Your task to perform on an android device: Open calendar and show me the fourth week of next month Image 0: 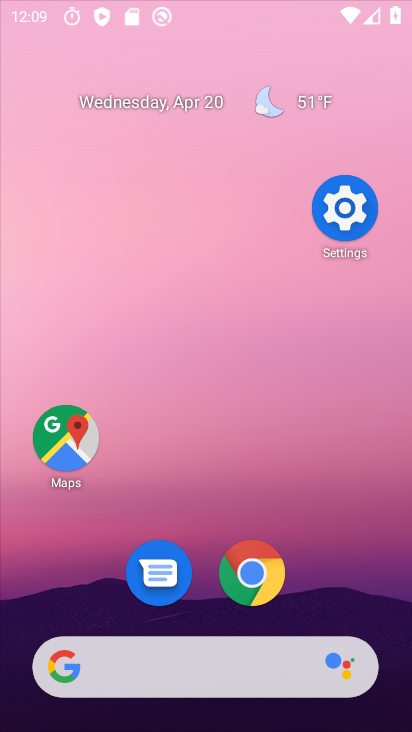
Step 0: click (354, 219)
Your task to perform on an android device: Open calendar and show me the fourth week of next month Image 1: 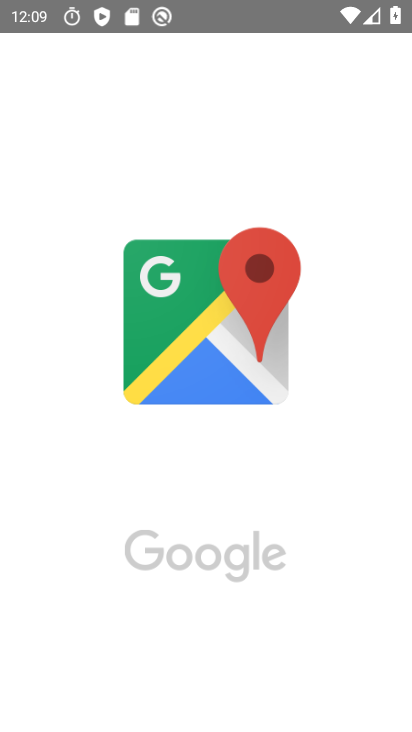
Step 1: drag from (359, 606) to (355, 287)
Your task to perform on an android device: Open calendar and show me the fourth week of next month Image 2: 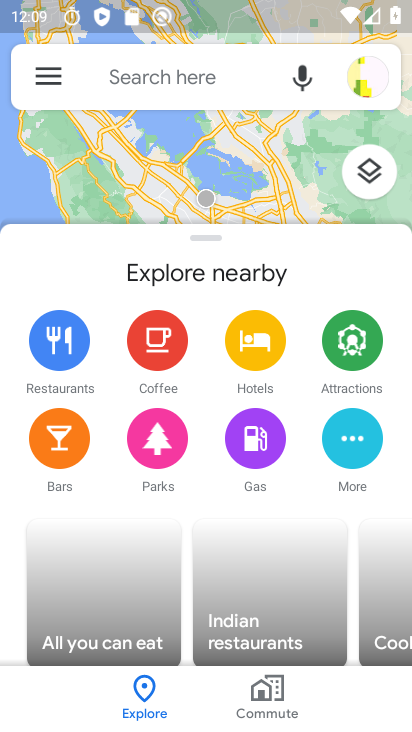
Step 2: press home button
Your task to perform on an android device: Open calendar and show me the fourth week of next month Image 3: 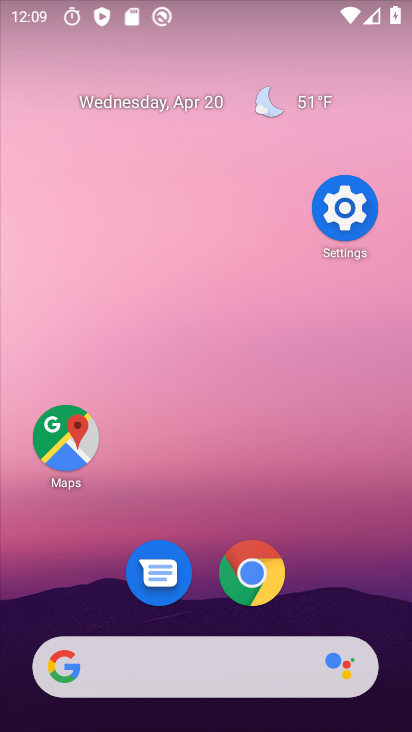
Step 3: drag from (345, 415) to (346, 141)
Your task to perform on an android device: Open calendar and show me the fourth week of next month Image 4: 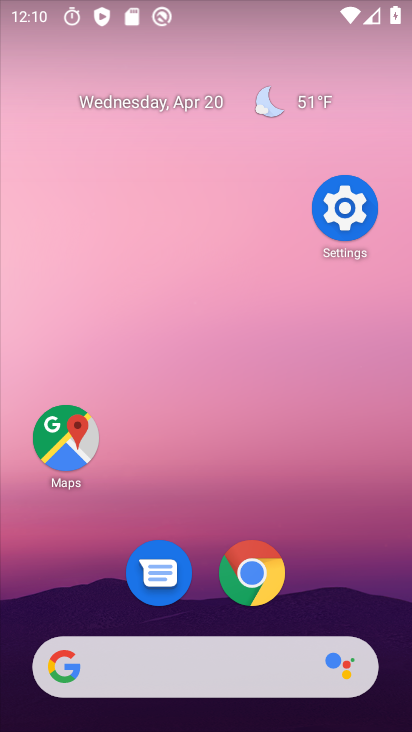
Step 4: drag from (366, 582) to (375, 92)
Your task to perform on an android device: Open calendar and show me the fourth week of next month Image 5: 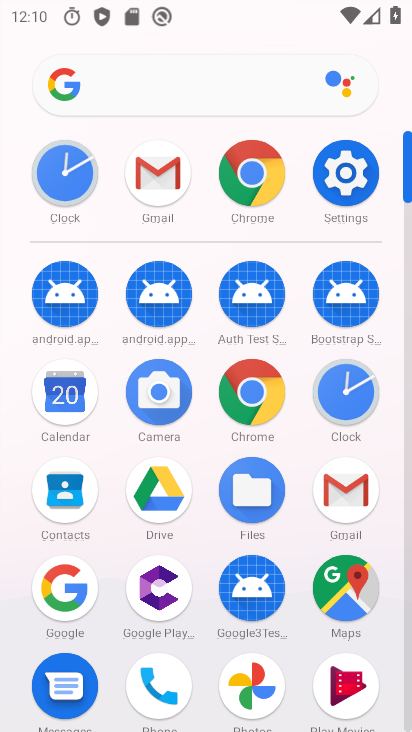
Step 5: click (80, 409)
Your task to perform on an android device: Open calendar and show me the fourth week of next month Image 6: 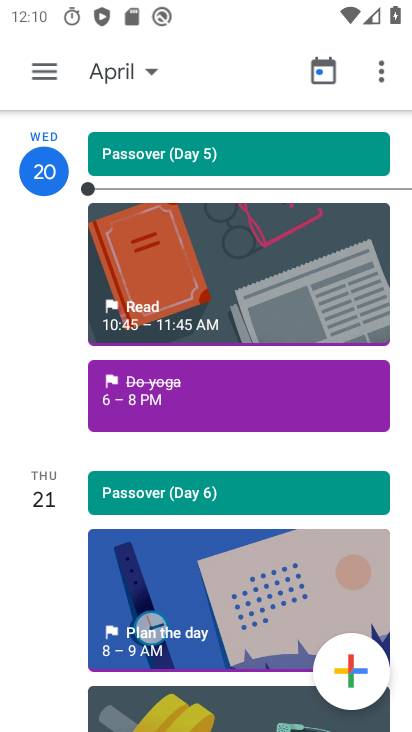
Step 6: click (125, 82)
Your task to perform on an android device: Open calendar and show me the fourth week of next month Image 7: 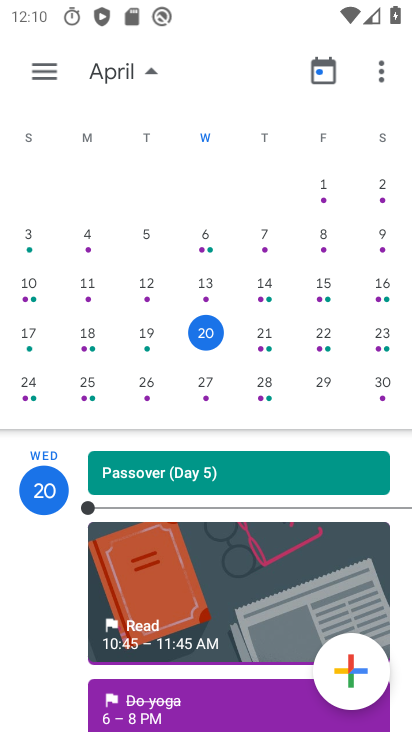
Step 7: drag from (361, 350) to (14, 349)
Your task to perform on an android device: Open calendar and show me the fourth week of next month Image 8: 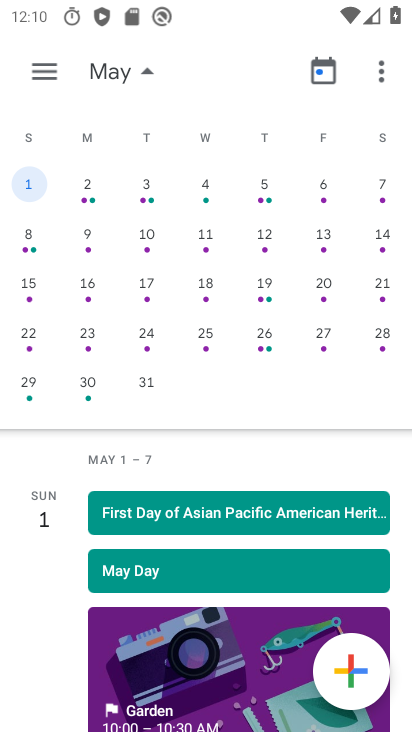
Step 8: click (25, 346)
Your task to perform on an android device: Open calendar and show me the fourth week of next month Image 9: 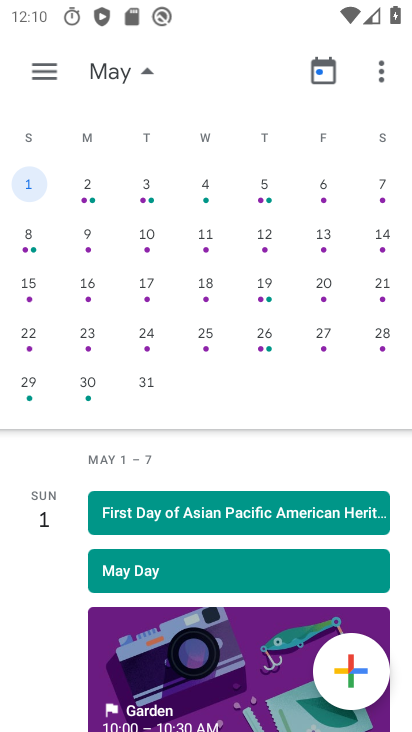
Step 9: drag from (31, 345) to (147, 346)
Your task to perform on an android device: Open calendar and show me the fourth week of next month Image 10: 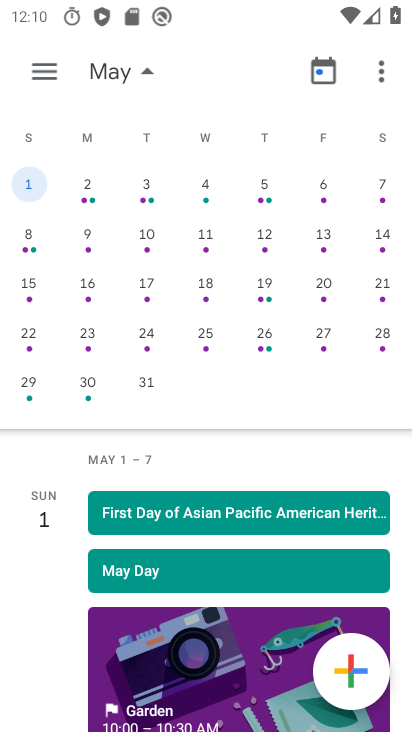
Step 10: click (204, 345)
Your task to perform on an android device: Open calendar and show me the fourth week of next month Image 11: 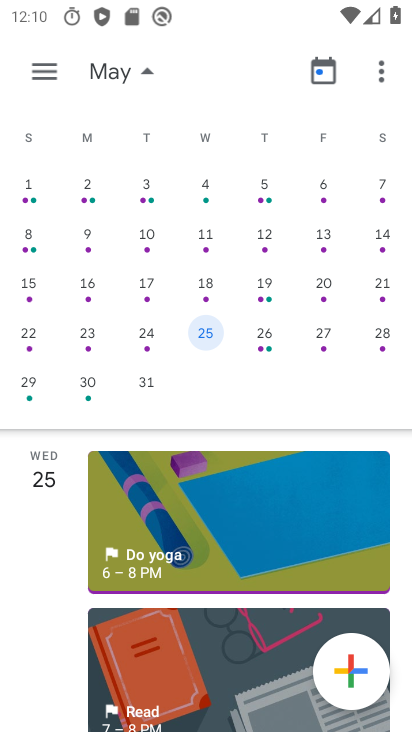
Step 11: click (269, 354)
Your task to perform on an android device: Open calendar and show me the fourth week of next month Image 12: 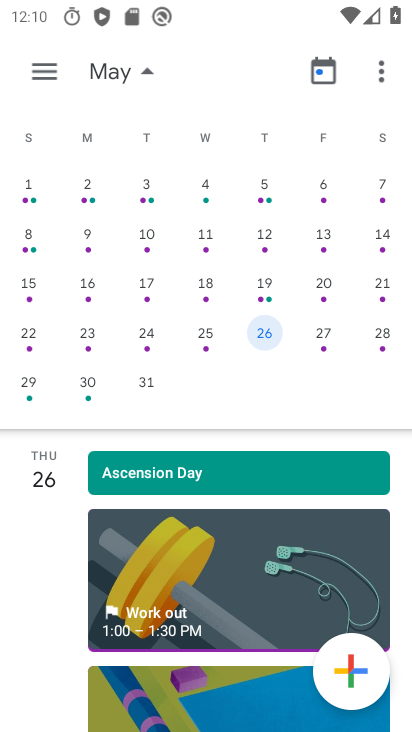
Step 12: click (306, 348)
Your task to perform on an android device: Open calendar and show me the fourth week of next month Image 13: 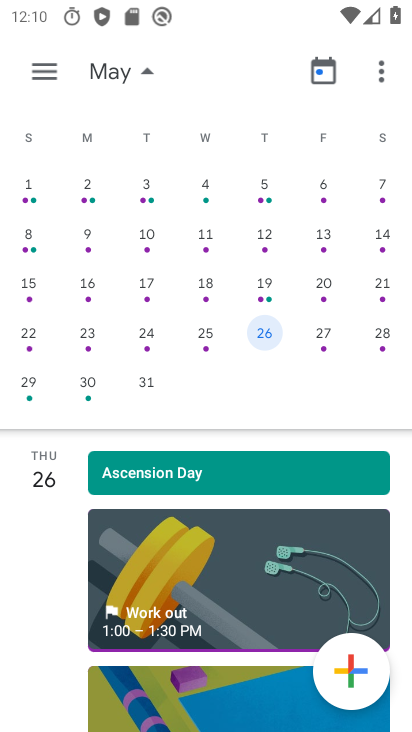
Step 13: click (378, 345)
Your task to perform on an android device: Open calendar and show me the fourth week of next month Image 14: 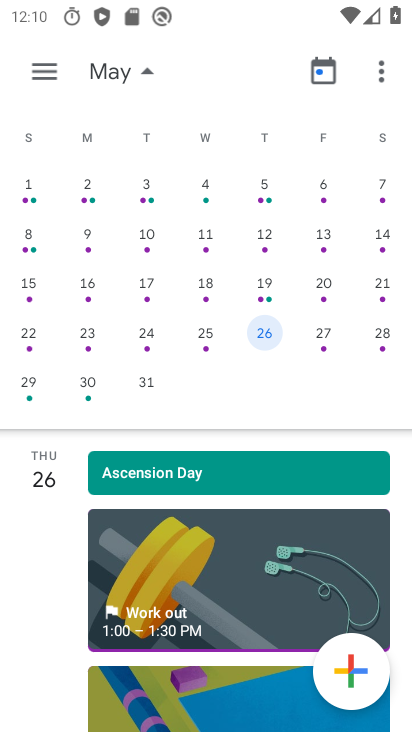
Step 14: click (381, 355)
Your task to perform on an android device: Open calendar and show me the fourth week of next month Image 15: 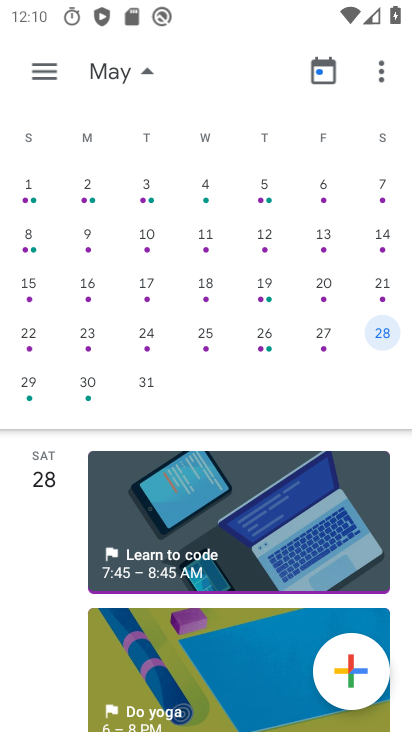
Step 15: click (319, 349)
Your task to perform on an android device: Open calendar and show me the fourth week of next month Image 16: 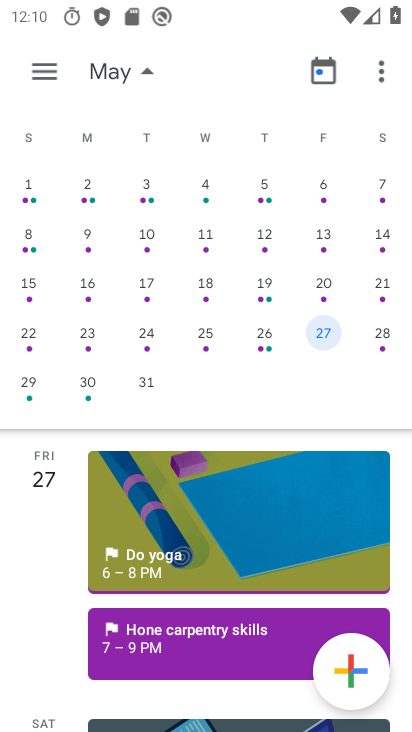
Step 16: task complete